Your task to perform on an android device: Go to Yahoo.com Image 0: 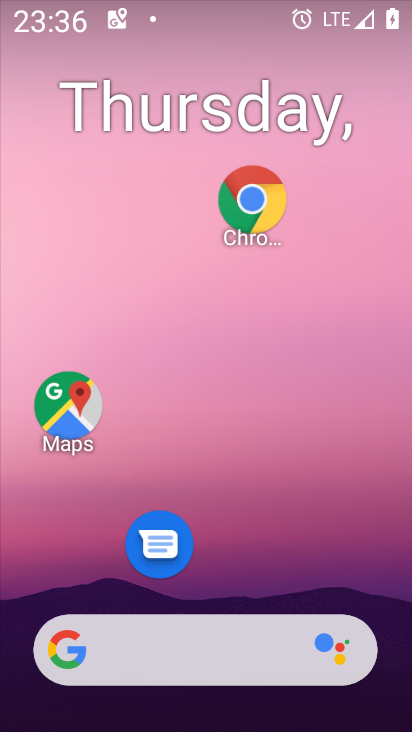
Step 0: click (253, 203)
Your task to perform on an android device: Go to Yahoo.com Image 1: 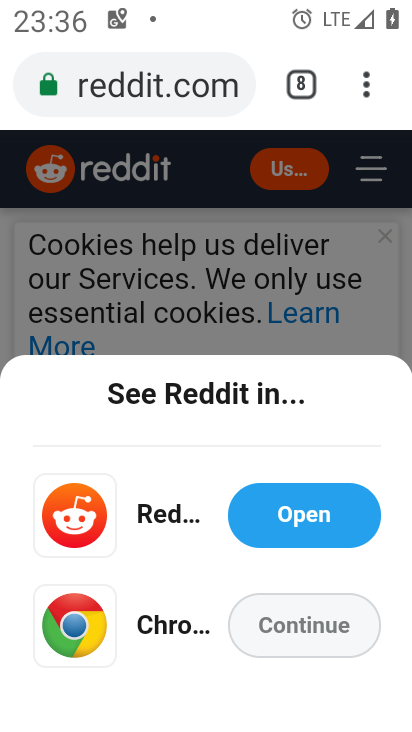
Step 1: click (355, 87)
Your task to perform on an android device: Go to Yahoo.com Image 2: 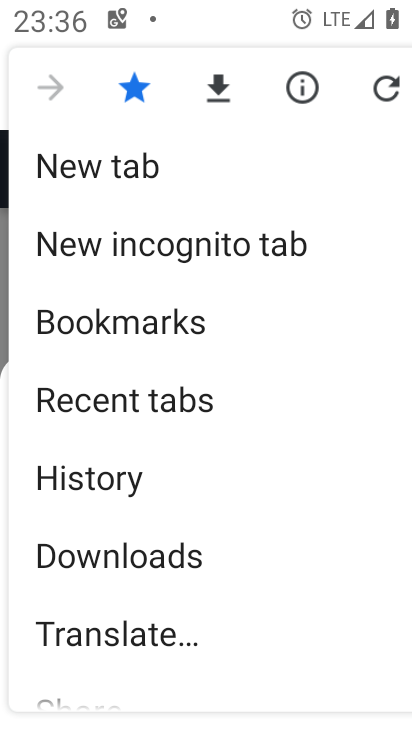
Step 2: click (96, 187)
Your task to perform on an android device: Go to Yahoo.com Image 3: 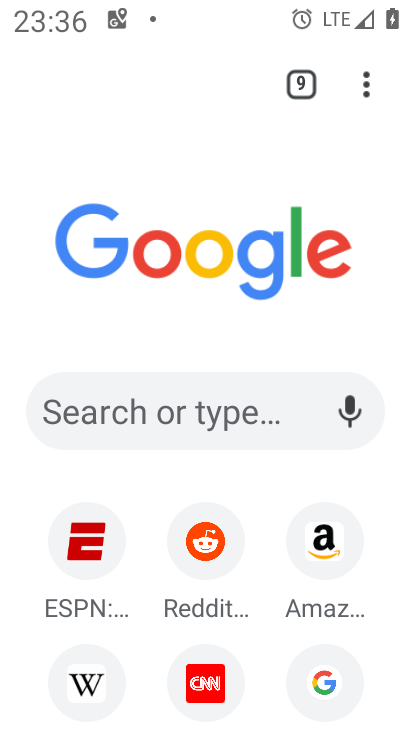
Step 3: drag from (145, 642) to (268, 245)
Your task to perform on an android device: Go to Yahoo.com Image 4: 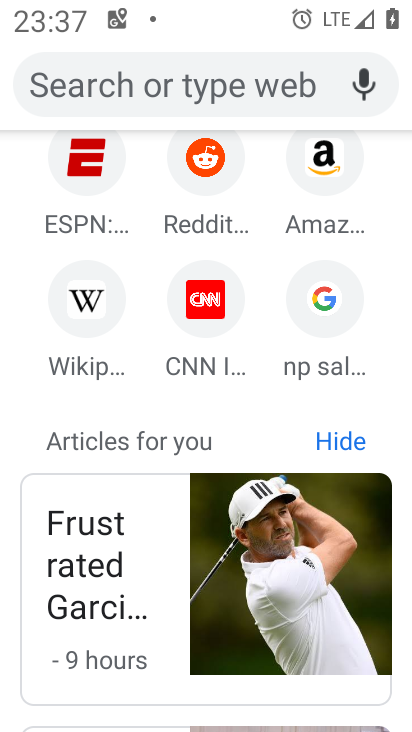
Step 4: click (216, 73)
Your task to perform on an android device: Go to Yahoo.com Image 5: 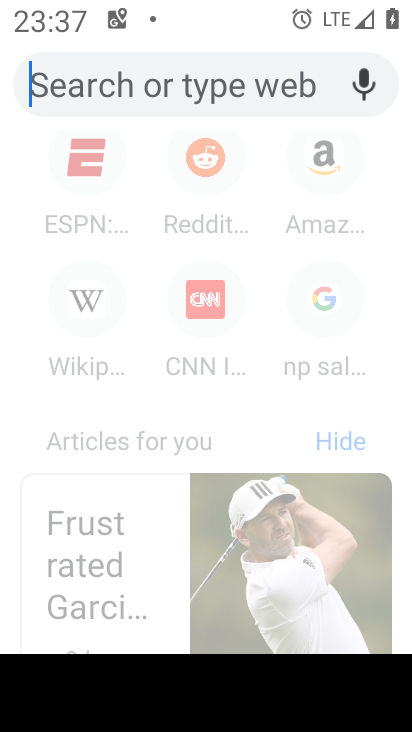
Step 5: type "yahoo.com"
Your task to perform on an android device: Go to Yahoo.com Image 6: 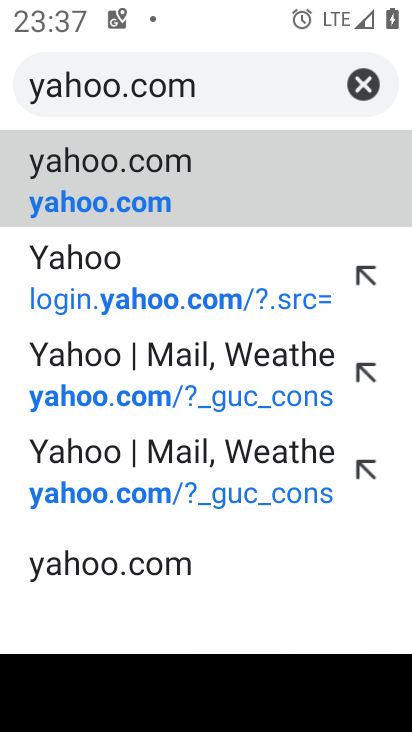
Step 6: click (257, 189)
Your task to perform on an android device: Go to Yahoo.com Image 7: 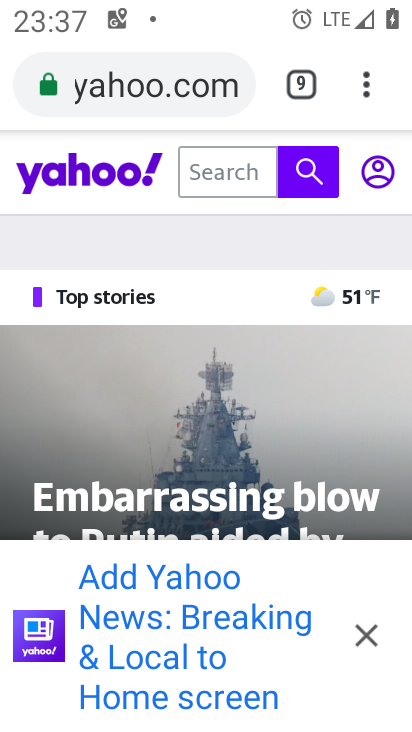
Step 7: task complete